Your task to perform on an android device: make emails show in primary in the gmail app Image 0: 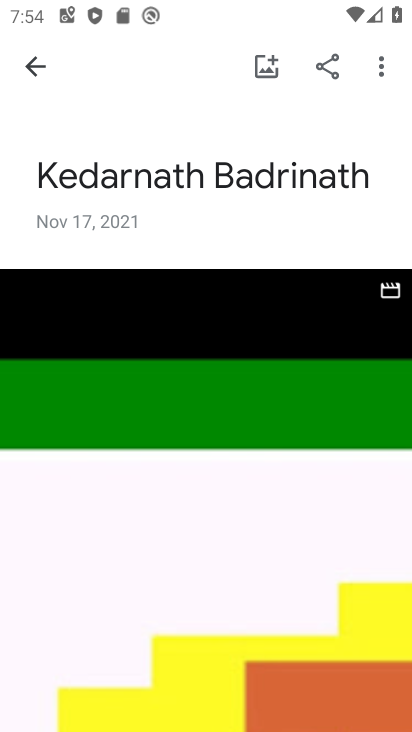
Step 0: press home button
Your task to perform on an android device: make emails show in primary in the gmail app Image 1: 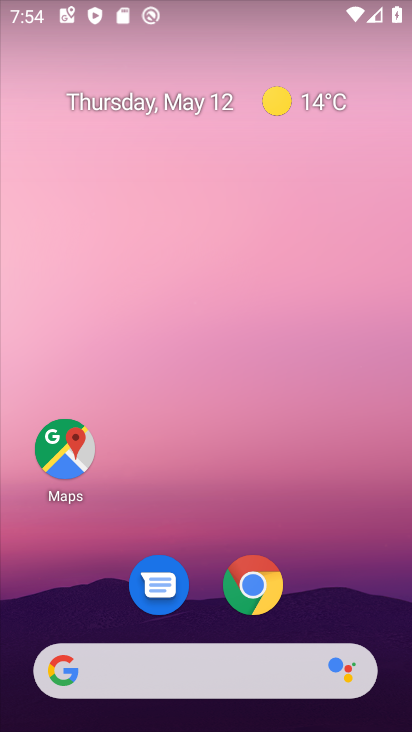
Step 1: drag from (213, 510) to (69, 79)
Your task to perform on an android device: make emails show in primary in the gmail app Image 2: 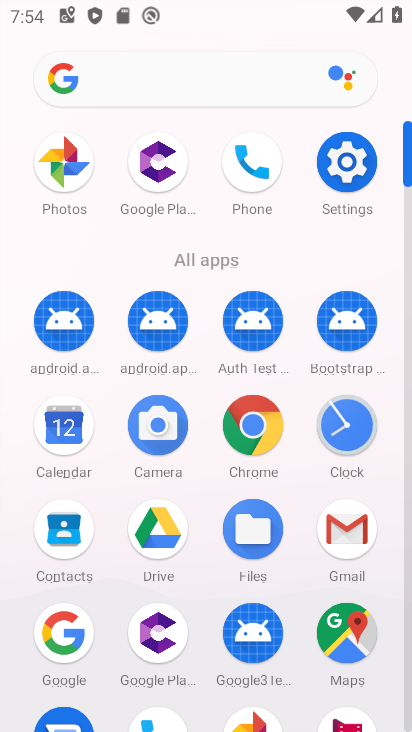
Step 2: click (359, 519)
Your task to perform on an android device: make emails show in primary in the gmail app Image 3: 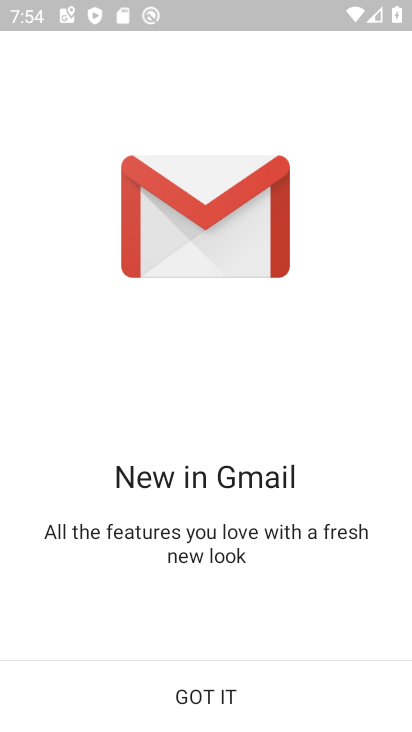
Step 3: click (275, 695)
Your task to perform on an android device: make emails show in primary in the gmail app Image 4: 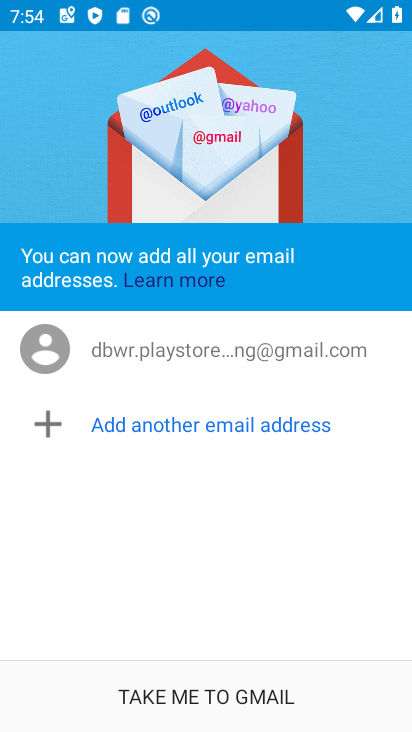
Step 4: click (271, 684)
Your task to perform on an android device: make emails show in primary in the gmail app Image 5: 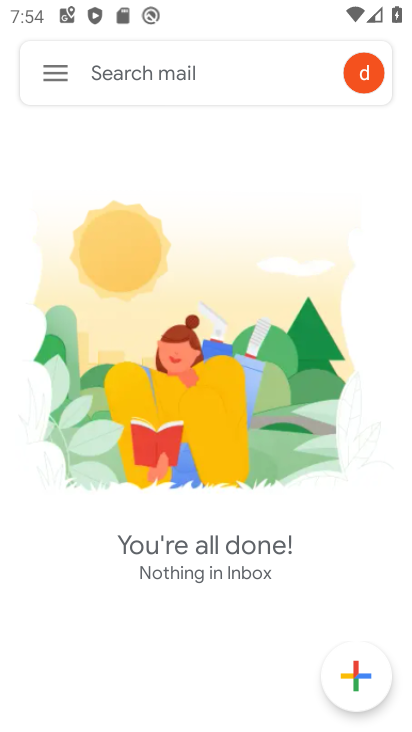
Step 5: click (56, 74)
Your task to perform on an android device: make emails show in primary in the gmail app Image 6: 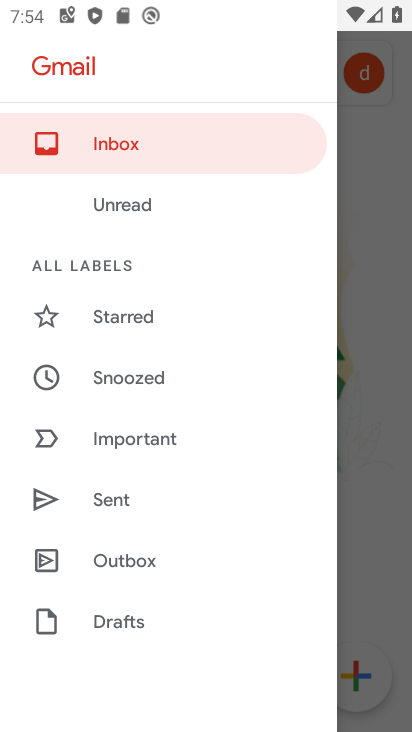
Step 6: drag from (176, 528) to (167, 0)
Your task to perform on an android device: make emails show in primary in the gmail app Image 7: 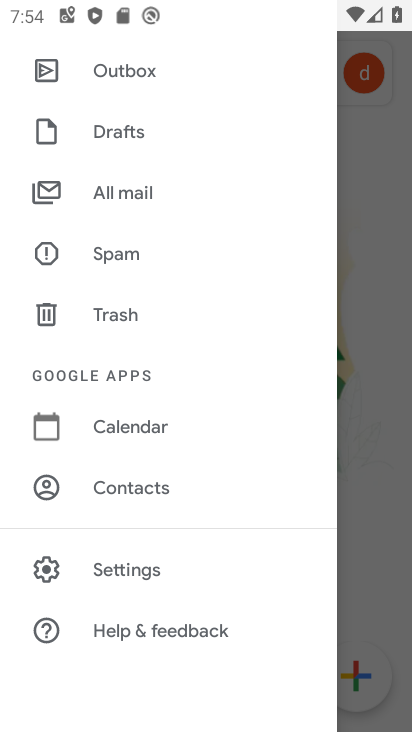
Step 7: click (156, 559)
Your task to perform on an android device: make emails show in primary in the gmail app Image 8: 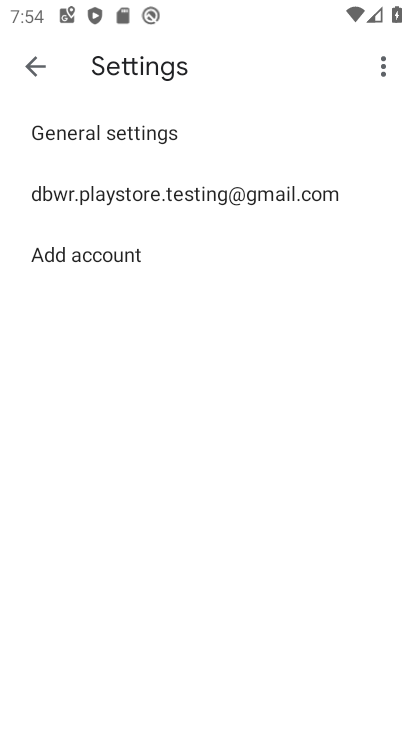
Step 8: click (203, 186)
Your task to perform on an android device: make emails show in primary in the gmail app Image 9: 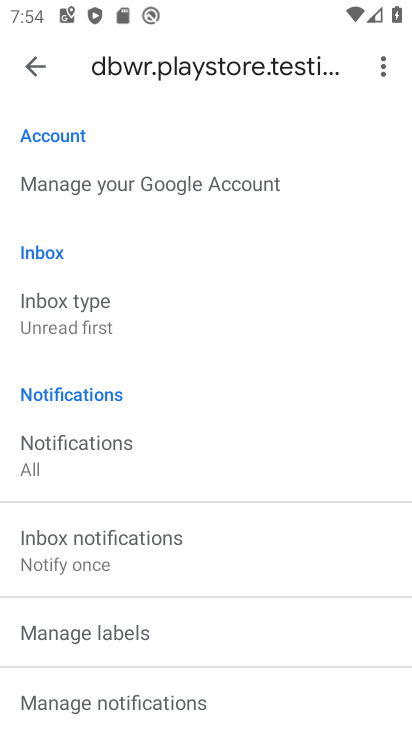
Step 9: click (73, 318)
Your task to perform on an android device: make emails show in primary in the gmail app Image 10: 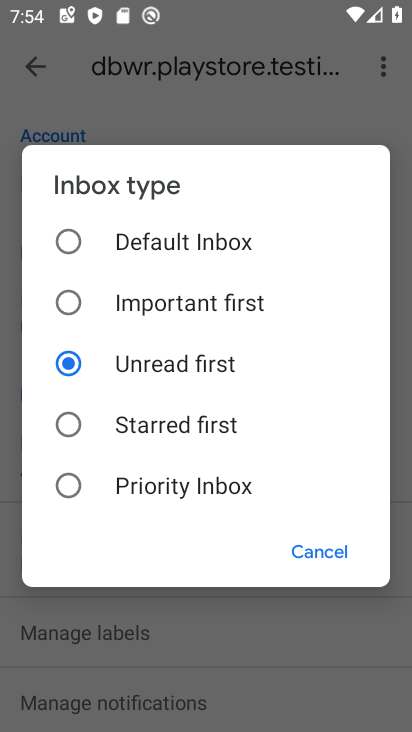
Step 10: click (68, 234)
Your task to perform on an android device: make emails show in primary in the gmail app Image 11: 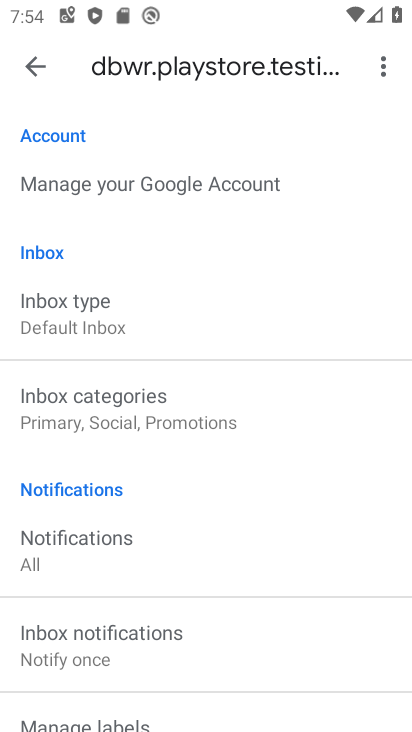
Step 11: click (131, 395)
Your task to perform on an android device: make emails show in primary in the gmail app Image 12: 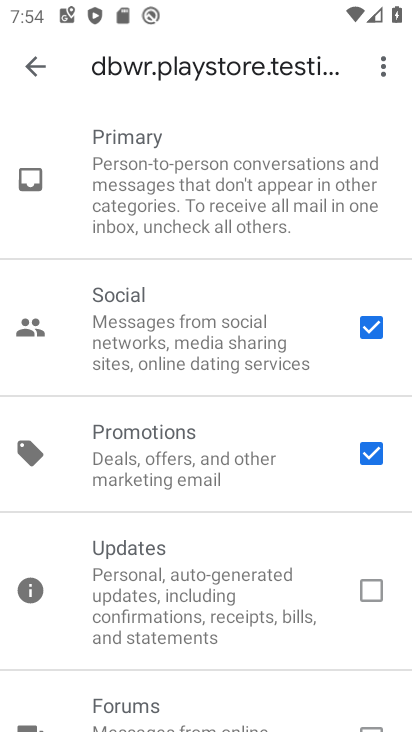
Step 12: click (375, 321)
Your task to perform on an android device: make emails show in primary in the gmail app Image 13: 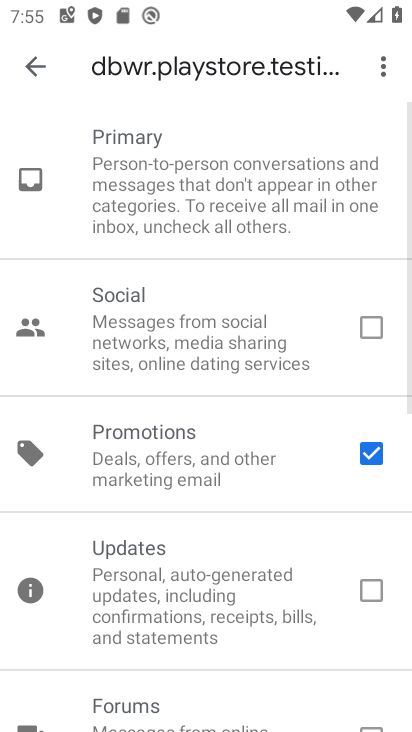
Step 13: click (373, 443)
Your task to perform on an android device: make emails show in primary in the gmail app Image 14: 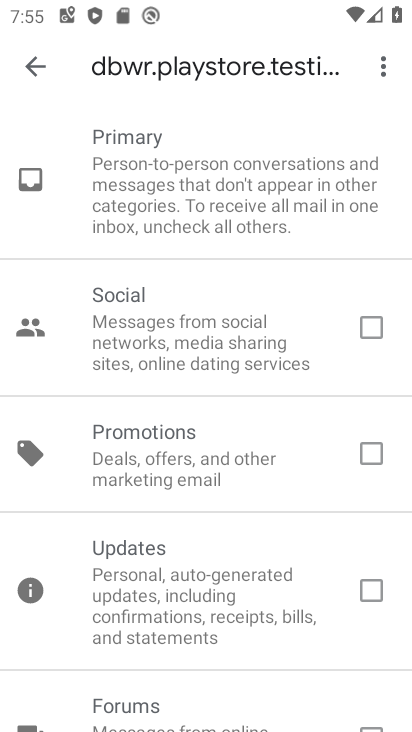
Step 14: click (36, 59)
Your task to perform on an android device: make emails show in primary in the gmail app Image 15: 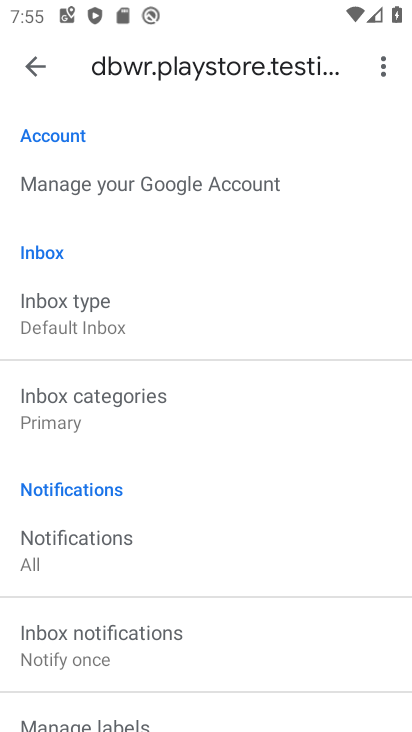
Step 15: task complete